Your task to perform on an android device: Open Chrome and go to settings Image 0: 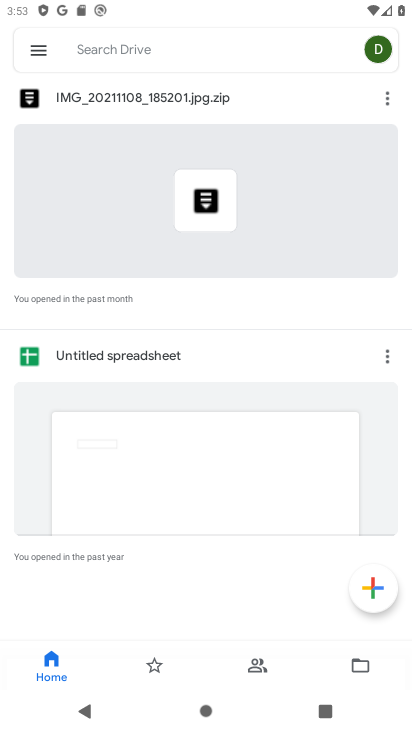
Step 0: press home button
Your task to perform on an android device: Open Chrome and go to settings Image 1: 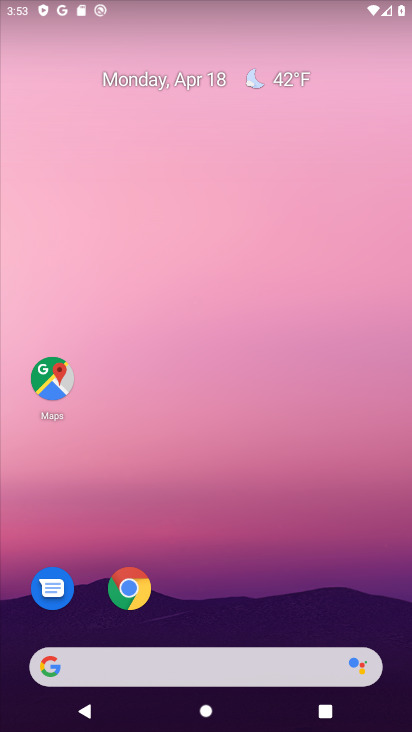
Step 1: click (128, 601)
Your task to perform on an android device: Open Chrome and go to settings Image 2: 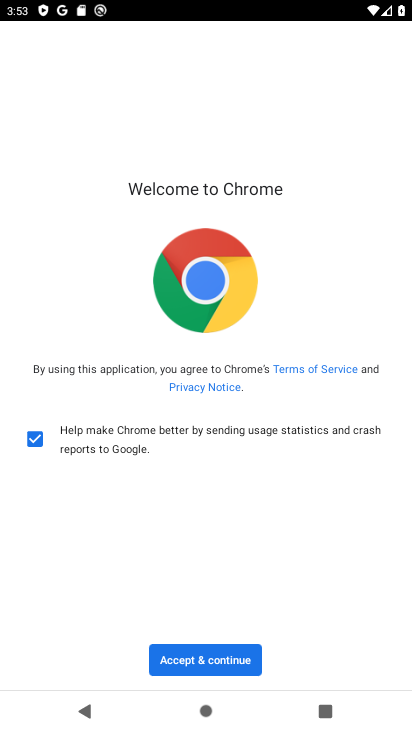
Step 2: click (227, 655)
Your task to perform on an android device: Open Chrome and go to settings Image 3: 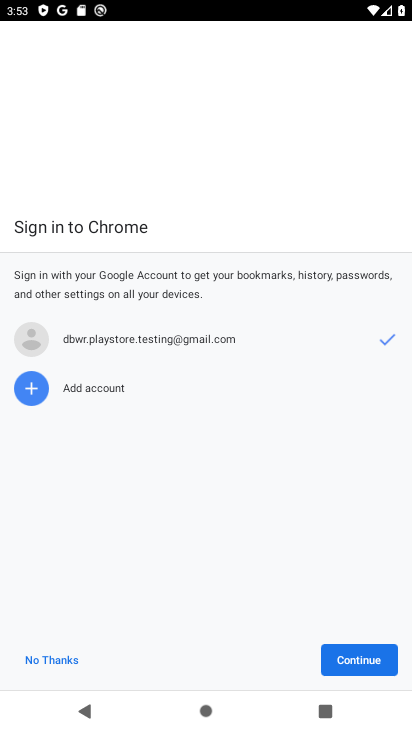
Step 3: click (351, 662)
Your task to perform on an android device: Open Chrome and go to settings Image 4: 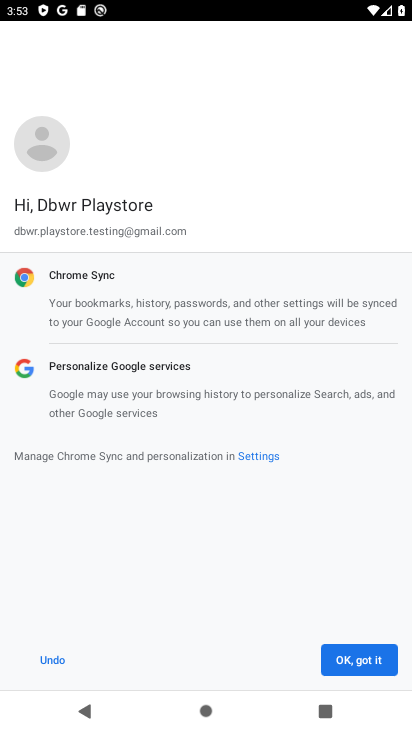
Step 4: click (370, 672)
Your task to perform on an android device: Open Chrome and go to settings Image 5: 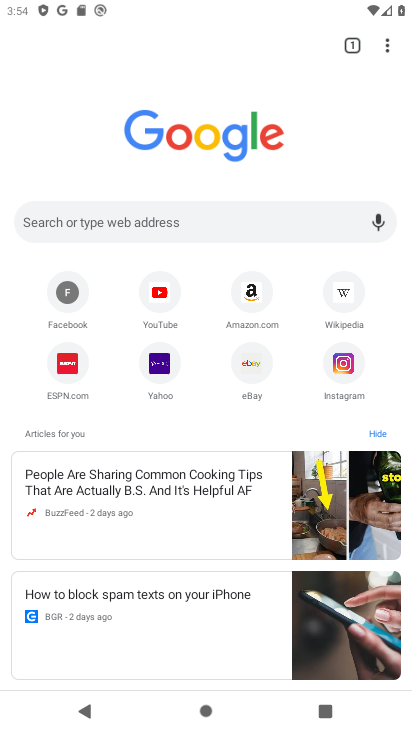
Step 5: task complete